Your task to perform on an android device: open app "Reddit" Image 0: 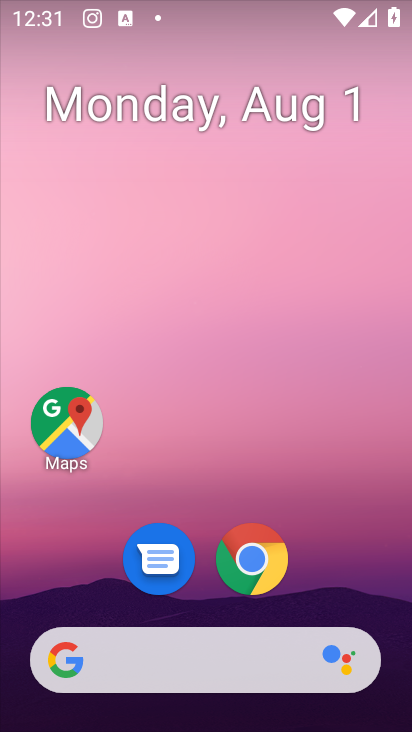
Step 0: drag from (106, 540) to (143, 2)
Your task to perform on an android device: open app "Reddit" Image 1: 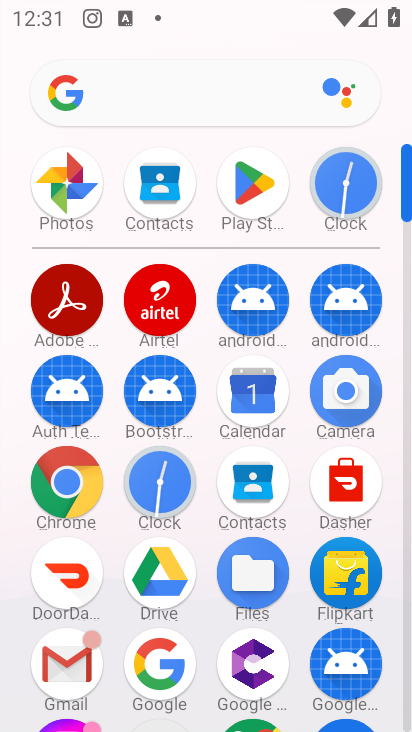
Step 1: click (257, 187)
Your task to perform on an android device: open app "Reddit" Image 2: 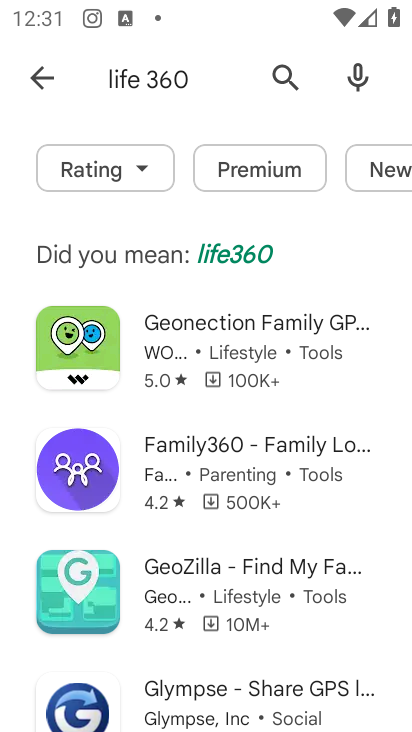
Step 2: click (292, 83)
Your task to perform on an android device: open app "Reddit" Image 3: 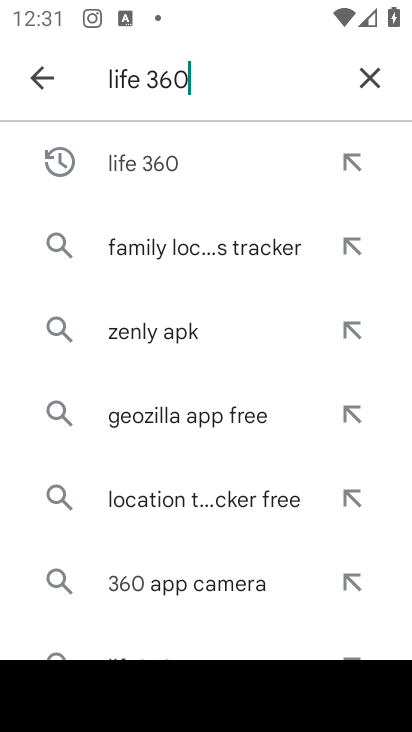
Step 3: click (358, 72)
Your task to perform on an android device: open app "Reddit" Image 4: 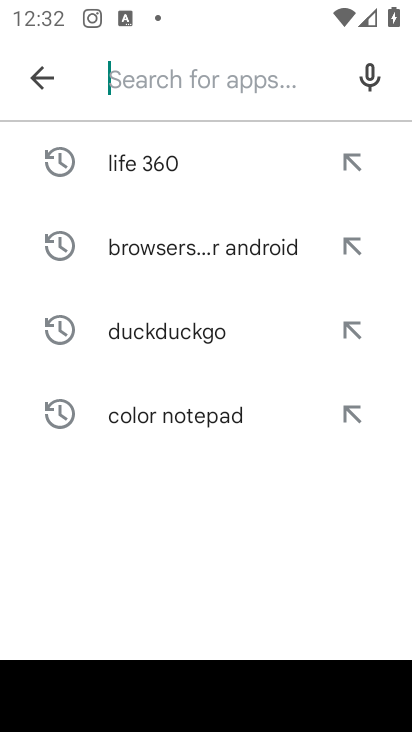
Step 4: click (141, 85)
Your task to perform on an android device: open app "Reddit" Image 5: 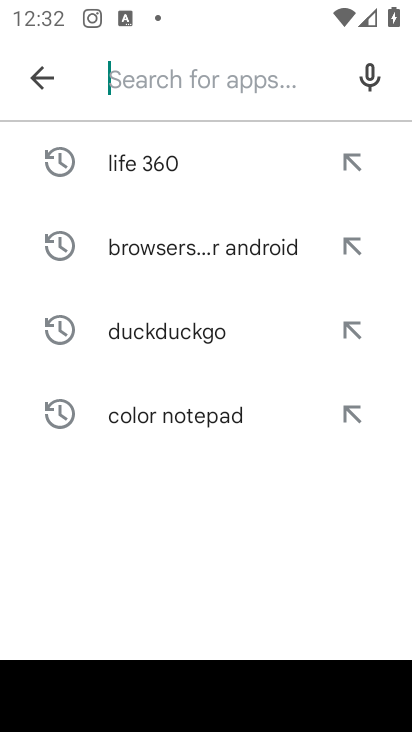
Step 5: type "reddit"
Your task to perform on an android device: open app "Reddit" Image 6: 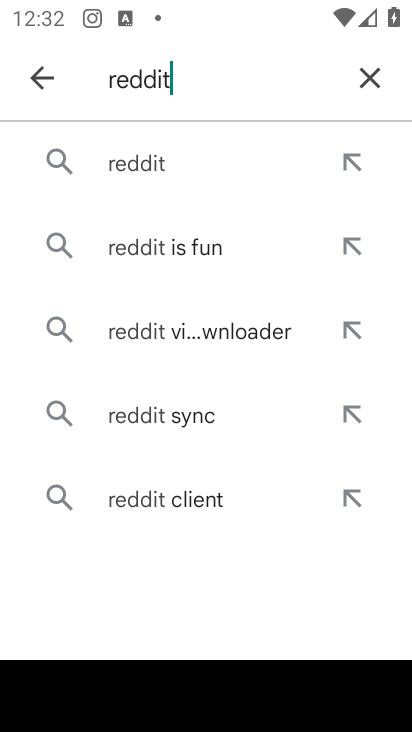
Step 6: click (183, 162)
Your task to perform on an android device: open app "Reddit" Image 7: 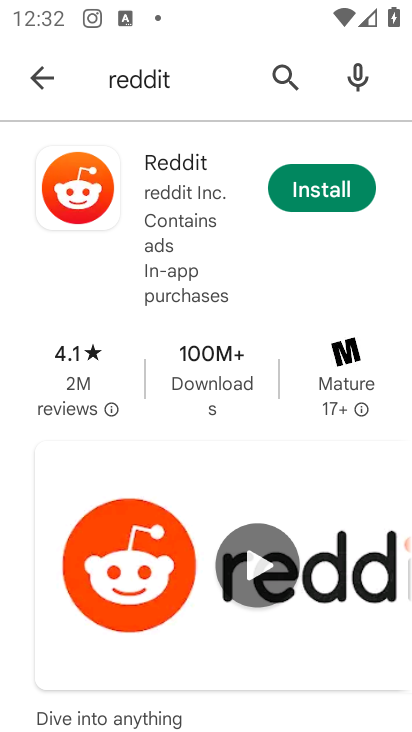
Step 7: task complete